Your task to perform on an android device: Open Wikipedia Image 0: 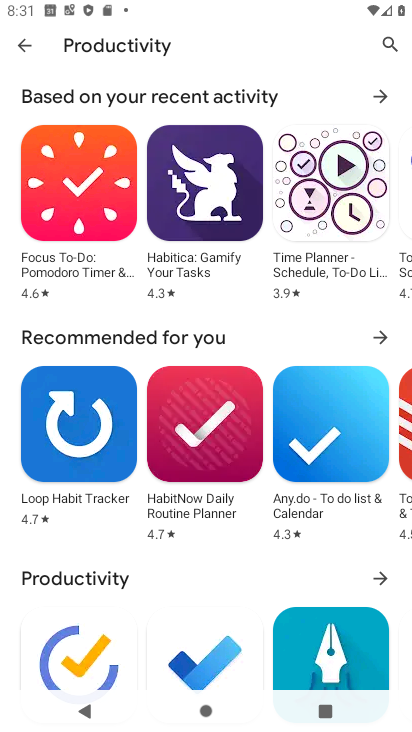
Step 0: press home button
Your task to perform on an android device: Open Wikipedia Image 1: 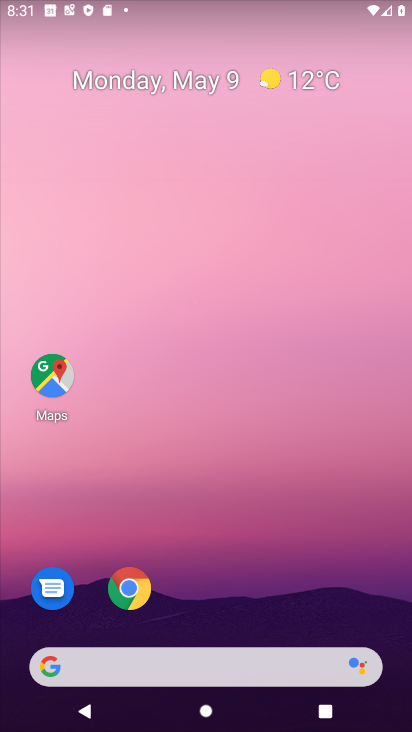
Step 1: drag from (181, 675) to (265, 194)
Your task to perform on an android device: Open Wikipedia Image 2: 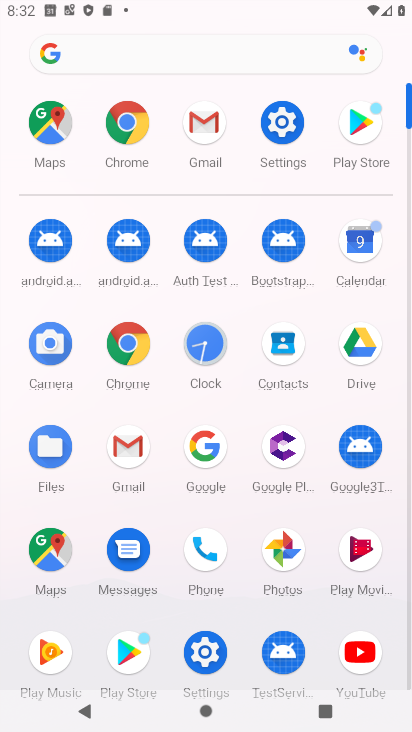
Step 2: click (128, 137)
Your task to perform on an android device: Open Wikipedia Image 3: 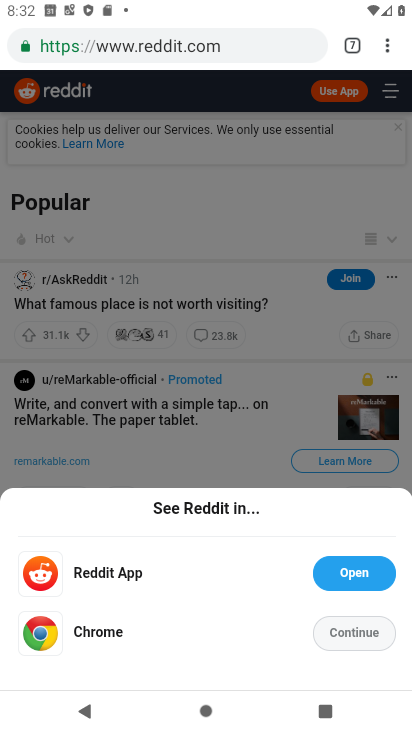
Step 3: drag from (386, 50) to (241, 93)
Your task to perform on an android device: Open Wikipedia Image 4: 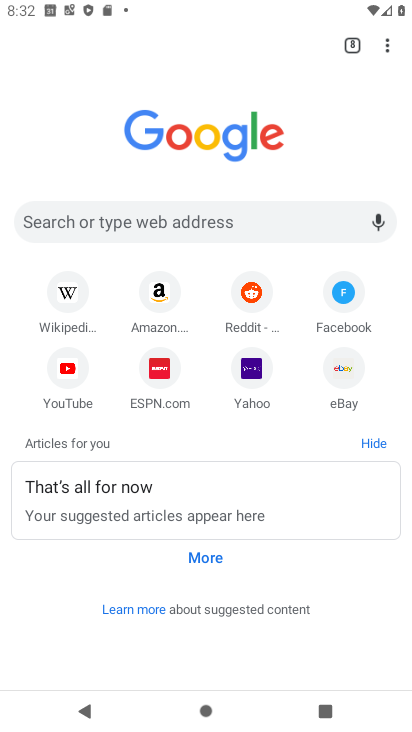
Step 4: click (69, 301)
Your task to perform on an android device: Open Wikipedia Image 5: 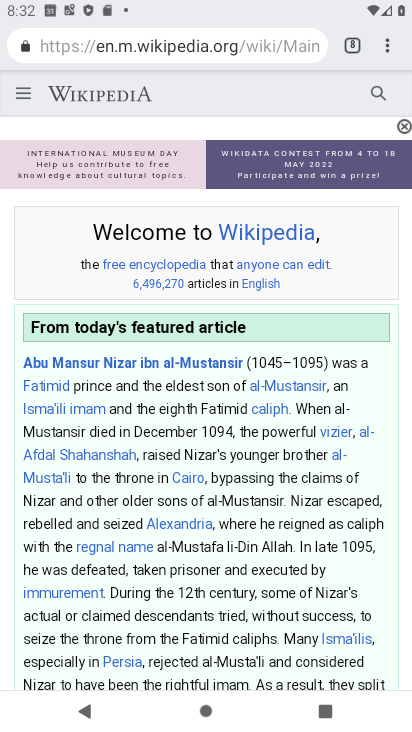
Step 5: task complete